Your task to perform on an android device: change the clock style Image 0: 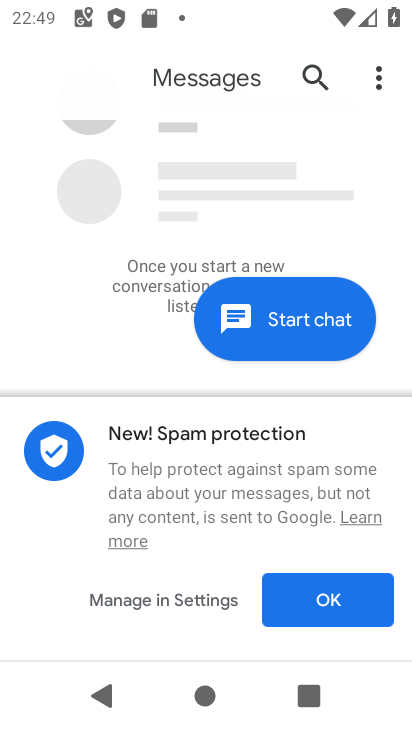
Step 0: press home button
Your task to perform on an android device: change the clock style Image 1: 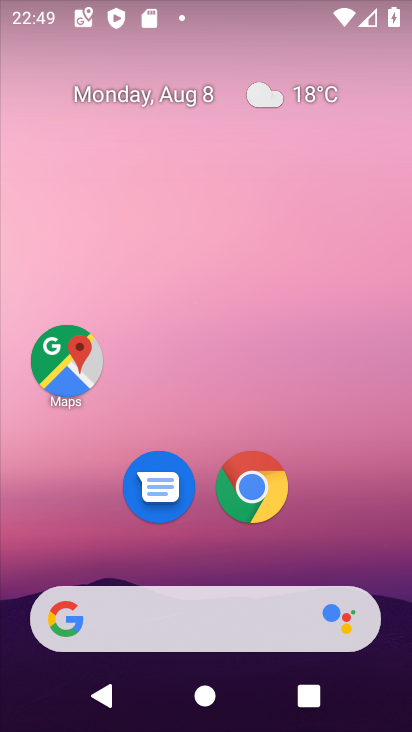
Step 1: drag from (194, 514) to (189, 102)
Your task to perform on an android device: change the clock style Image 2: 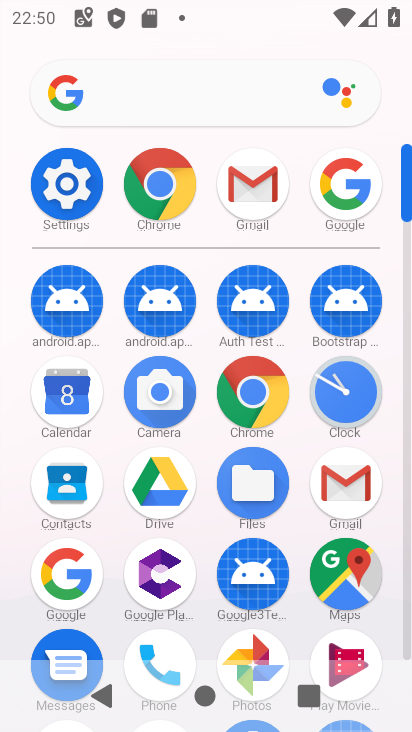
Step 2: click (342, 393)
Your task to perform on an android device: change the clock style Image 3: 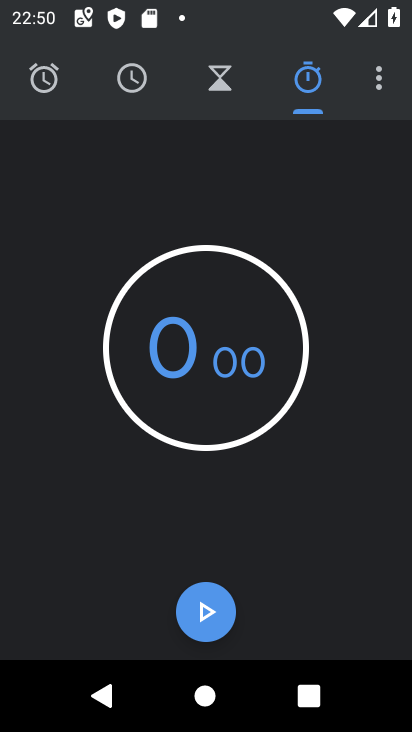
Step 3: click (380, 90)
Your task to perform on an android device: change the clock style Image 4: 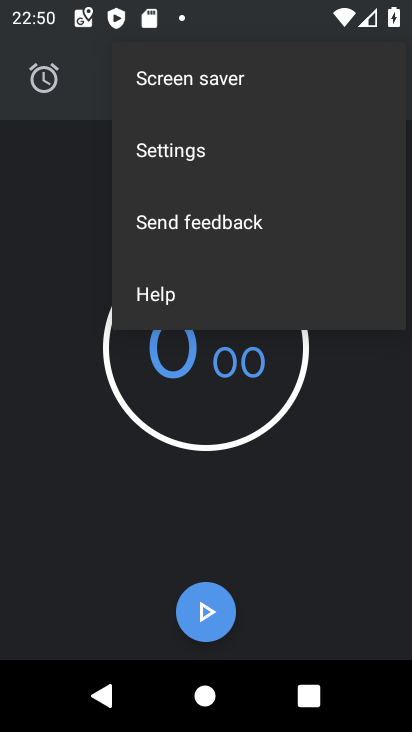
Step 4: click (193, 151)
Your task to perform on an android device: change the clock style Image 5: 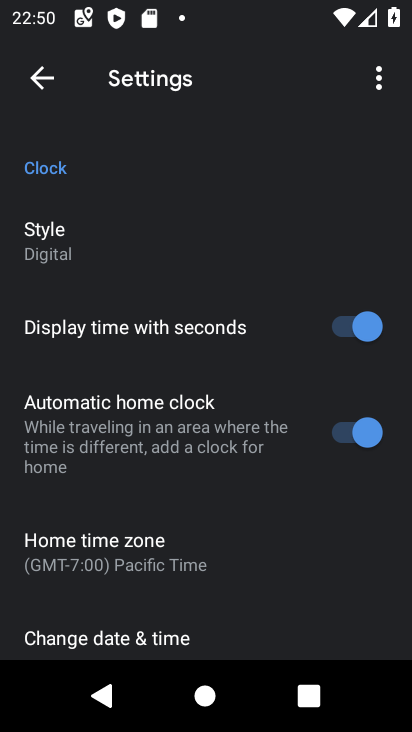
Step 5: click (48, 256)
Your task to perform on an android device: change the clock style Image 6: 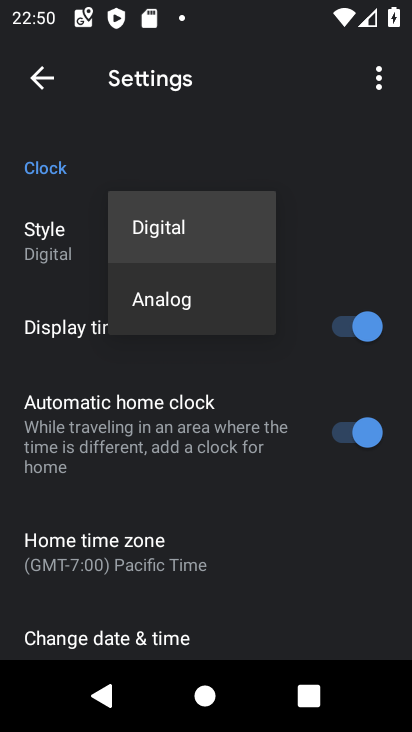
Step 6: click (157, 296)
Your task to perform on an android device: change the clock style Image 7: 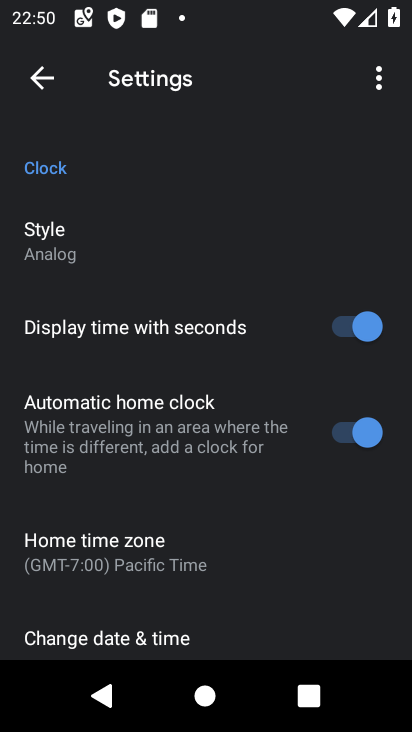
Step 7: task complete